Your task to perform on an android device: Open settings on Google Maps Image 0: 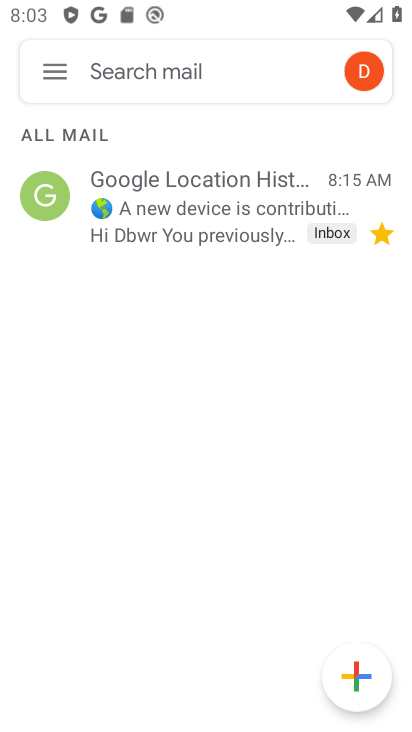
Step 0: press home button
Your task to perform on an android device: Open settings on Google Maps Image 1: 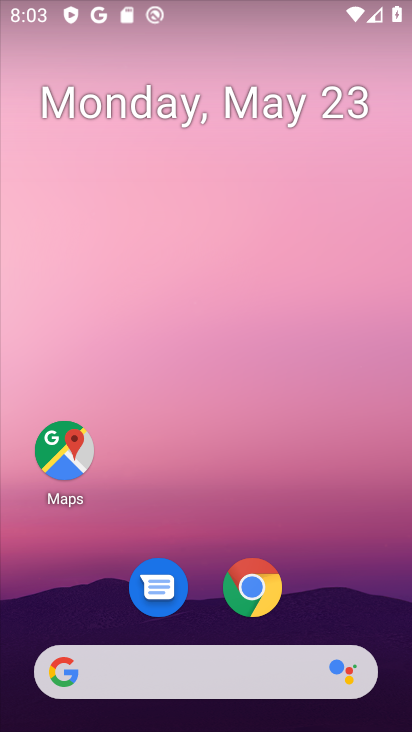
Step 1: click (66, 444)
Your task to perform on an android device: Open settings on Google Maps Image 2: 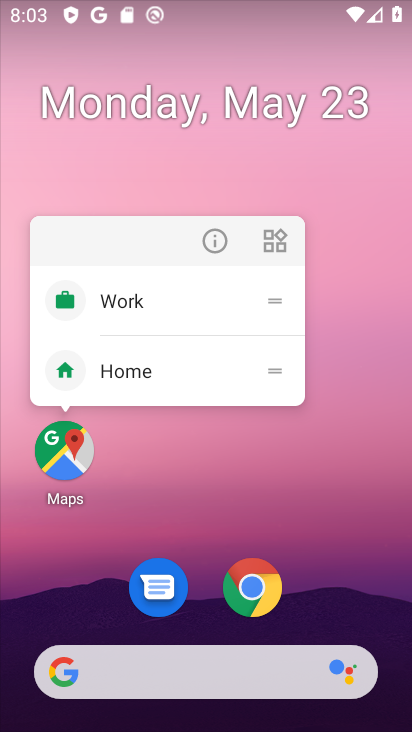
Step 2: click (53, 461)
Your task to perform on an android device: Open settings on Google Maps Image 3: 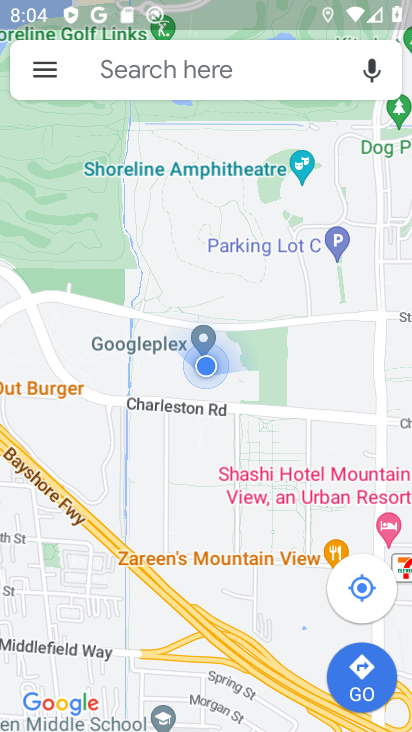
Step 3: task complete